Your task to perform on an android device: Turn off the flashlight Image 0: 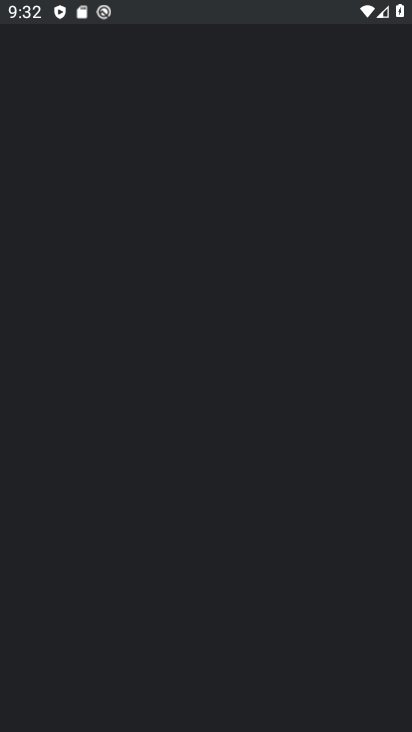
Step 0: press home button
Your task to perform on an android device: Turn off the flashlight Image 1: 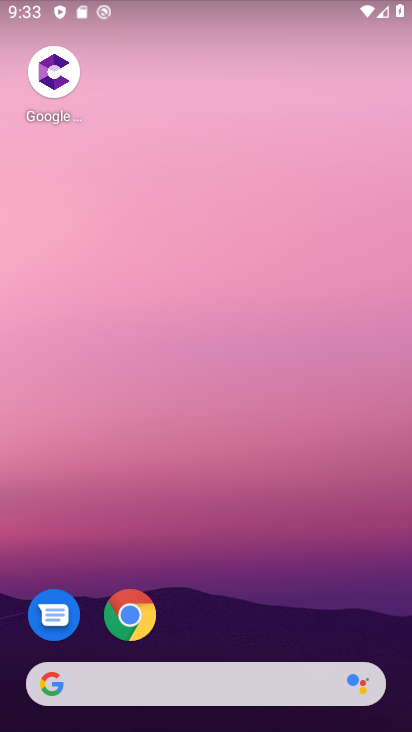
Step 1: drag from (293, 645) to (173, 119)
Your task to perform on an android device: Turn off the flashlight Image 2: 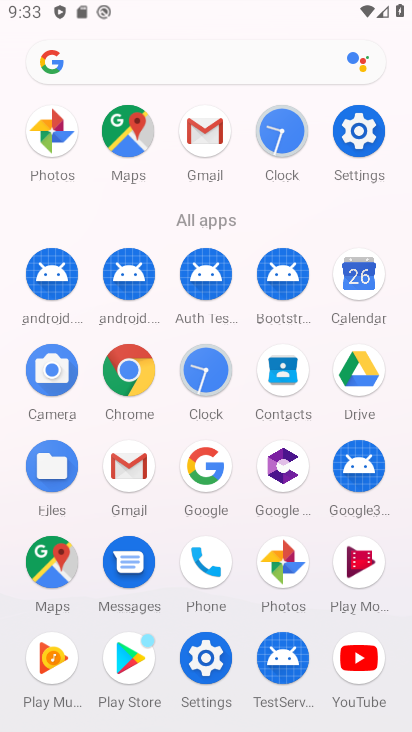
Step 2: click (347, 153)
Your task to perform on an android device: Turn off the flashlight Image 3: 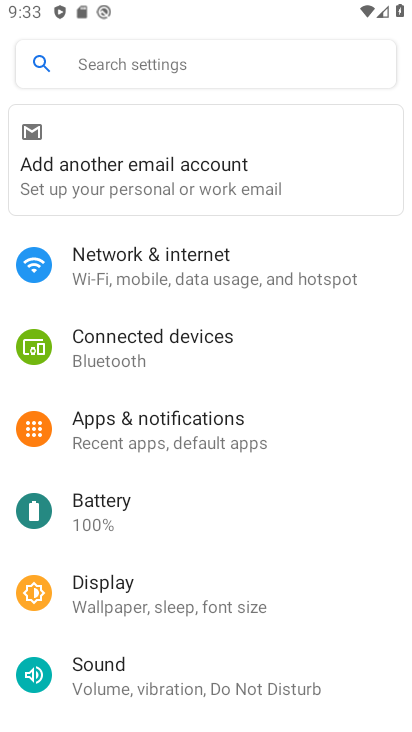
Step 3: click (194, 65)
Your task to perform on an android device: Turn off the flashlight Image 4: 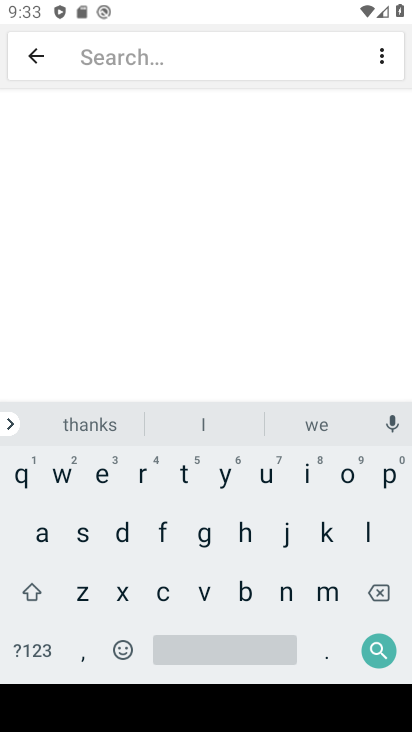
Step 4: click (171, 526)
Your task to perform on an android device: Turn off the flashlight Image 5: 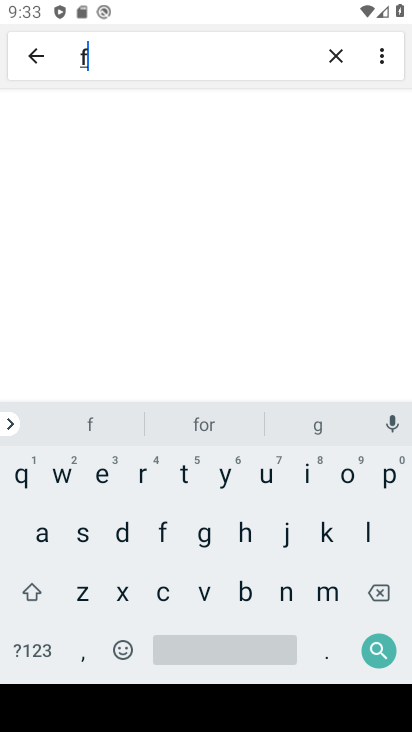
Step 5: click (361, 530)
Your task to perform on an android device: Turn off the flashlight Image 6: 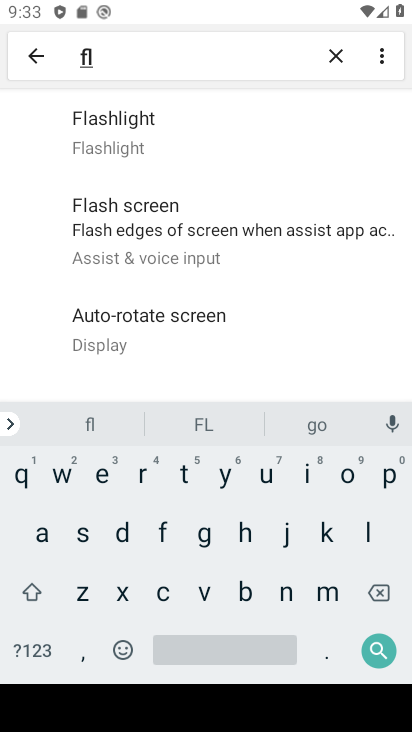
Step 6: click (168, 133)
Your task to perform on an android device: Turn off the flashlight Image 7: 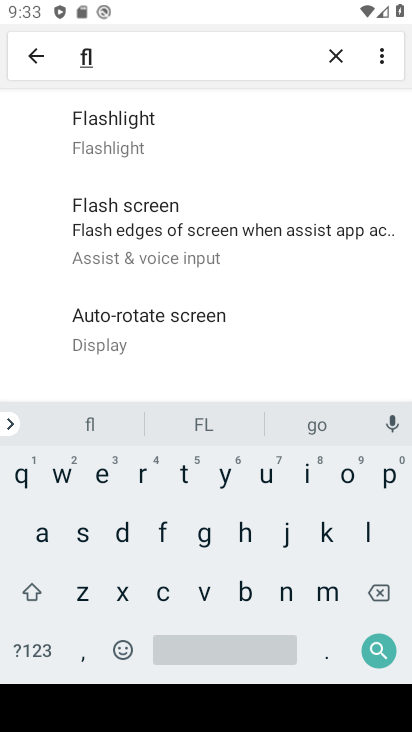
Step 7: task complete